Your task to perform on an android device: Show me the alarms in the clock app Image 0: 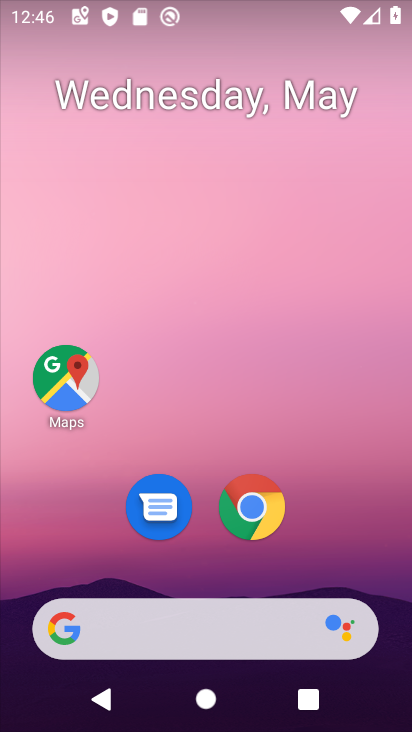
Step 0: drag from (397, 610) to (295, 47)
Your task to perform on an android device: Show me the alarms in the clock app Image 1: 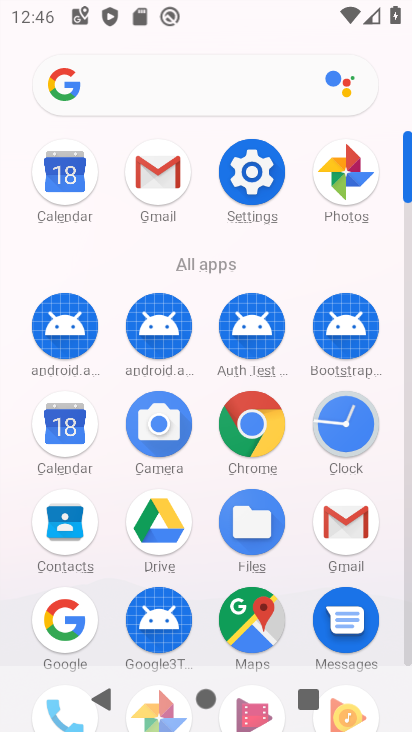
Step 1: click (411, 647)
Your task to perform on an android device: Show me the alarms in the clock app Image 2: 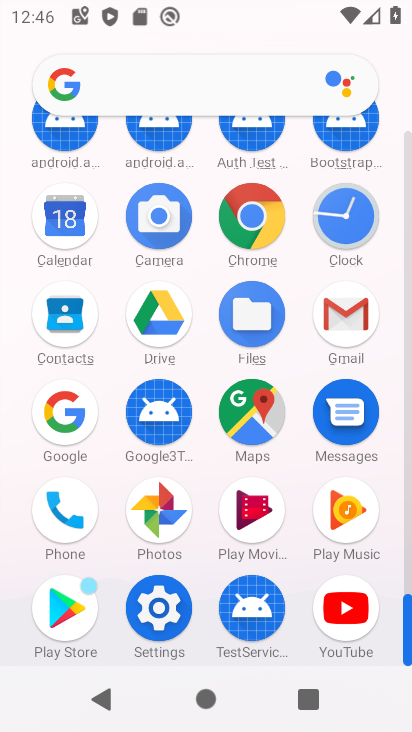
Step 2: click (346, 211)
Your task to perform on an android device: Show me the alarms in the clock app Image 3: 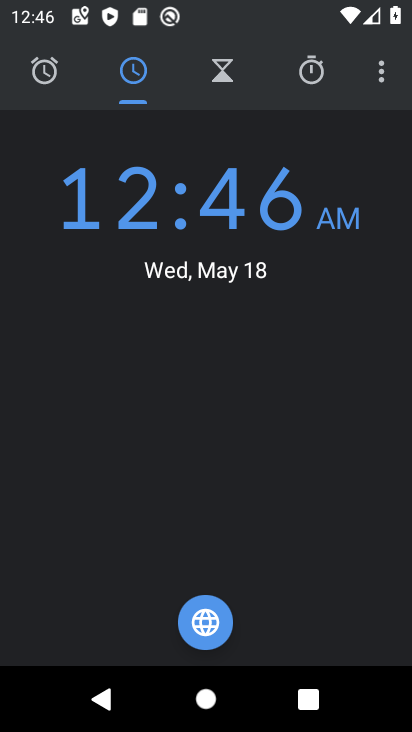
Step 3: click (46, 70)
Your task to perform on an android device: Show me the alarms in the clock app Image 4: 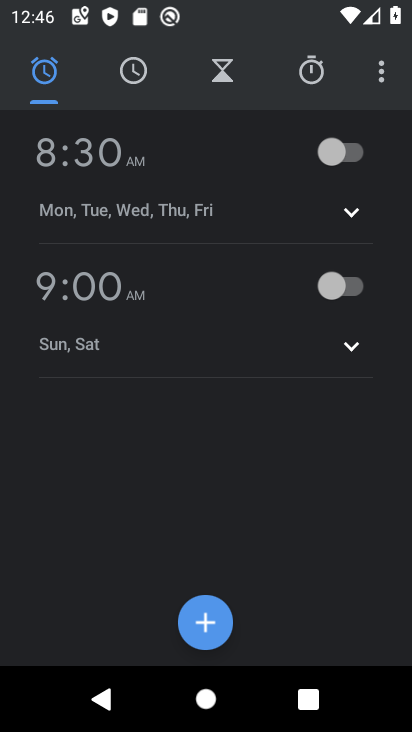
Step 4: task complete